Your task to perform on an android device: Show me the alarms in the clock app Image 0: 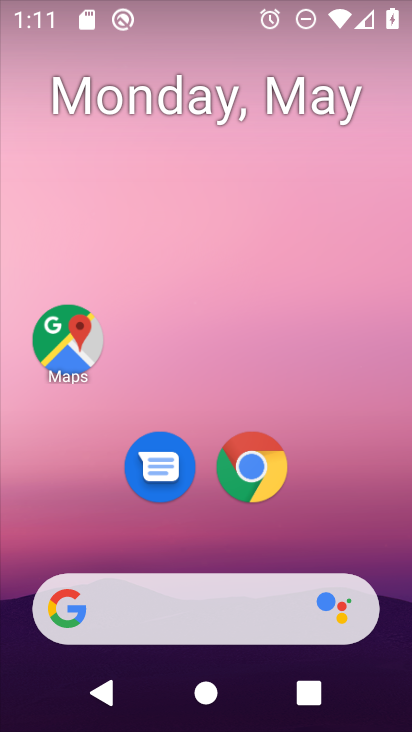
Step 0: drag from (394, 567) to (407, 366)
Your task to perform on an android device: Show me the alarms in the clock app Image 1: 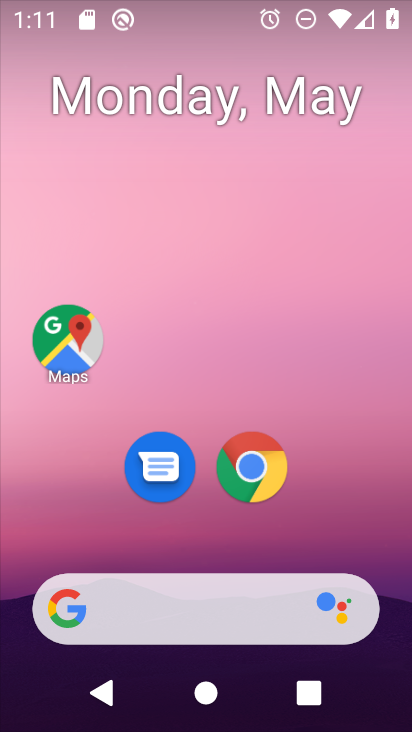
Step 1: drag from (388, 598) to (384, 11)
Your task to perform on an android device: Show me the alarms in the clock app Image 2: 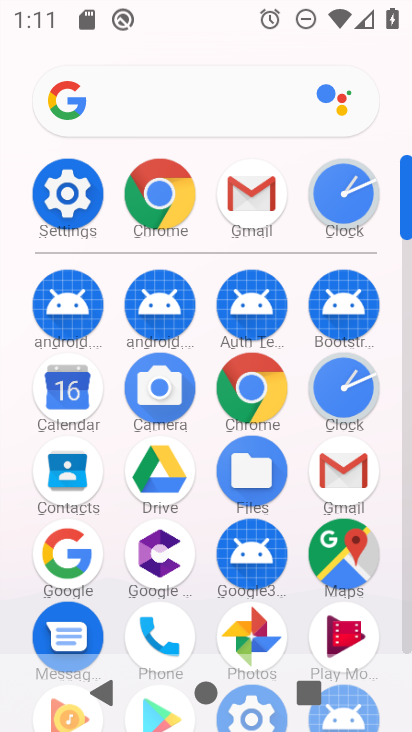
Step 2: click (342, 196)
Your task to perform on an android device: Show me the alarms in the clock app Image 3: 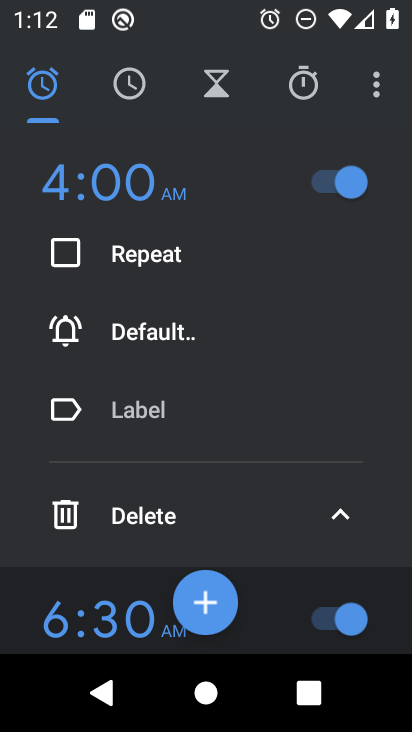
Step 3: task complete